Your task to perform on an android device: install app "Venmo" Image 0: 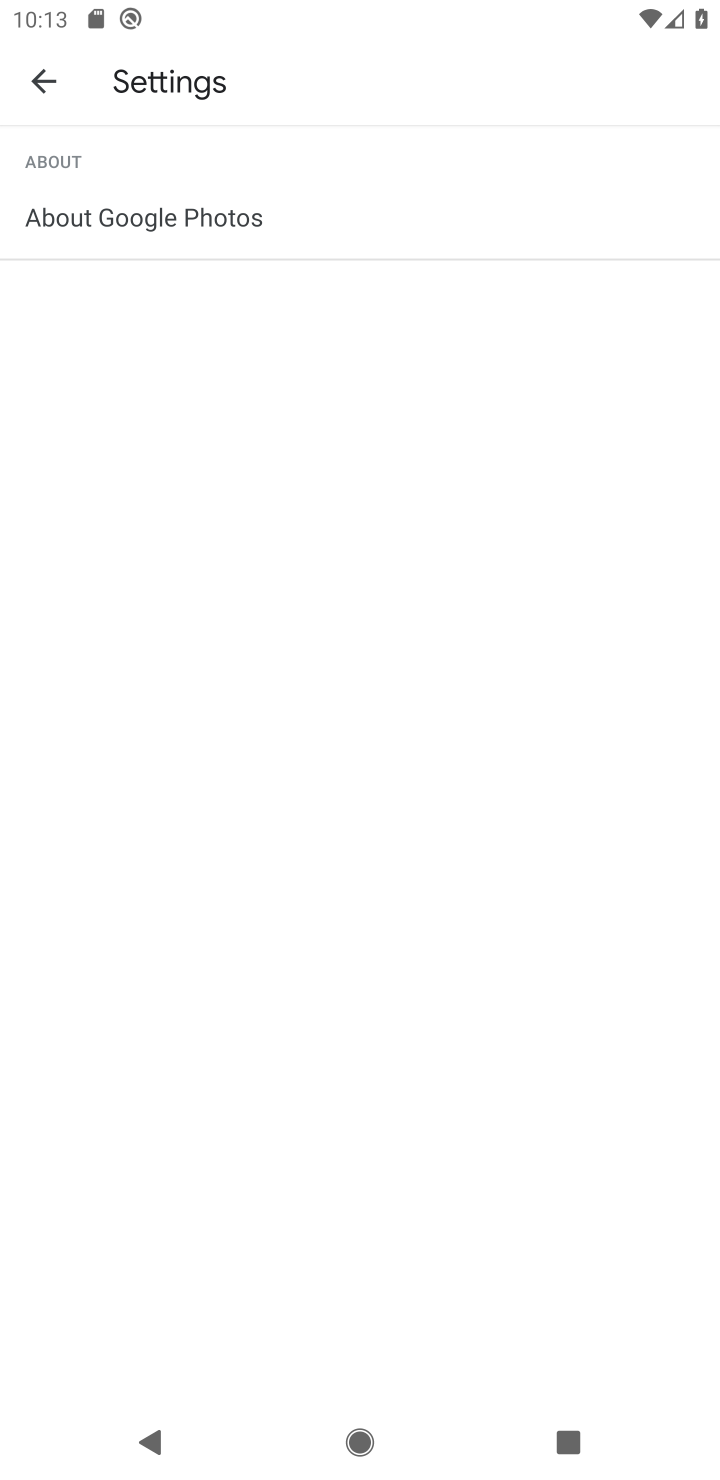
Step 0: press home button
Your task to perform on an android device: install app "Venmo" Image 1: 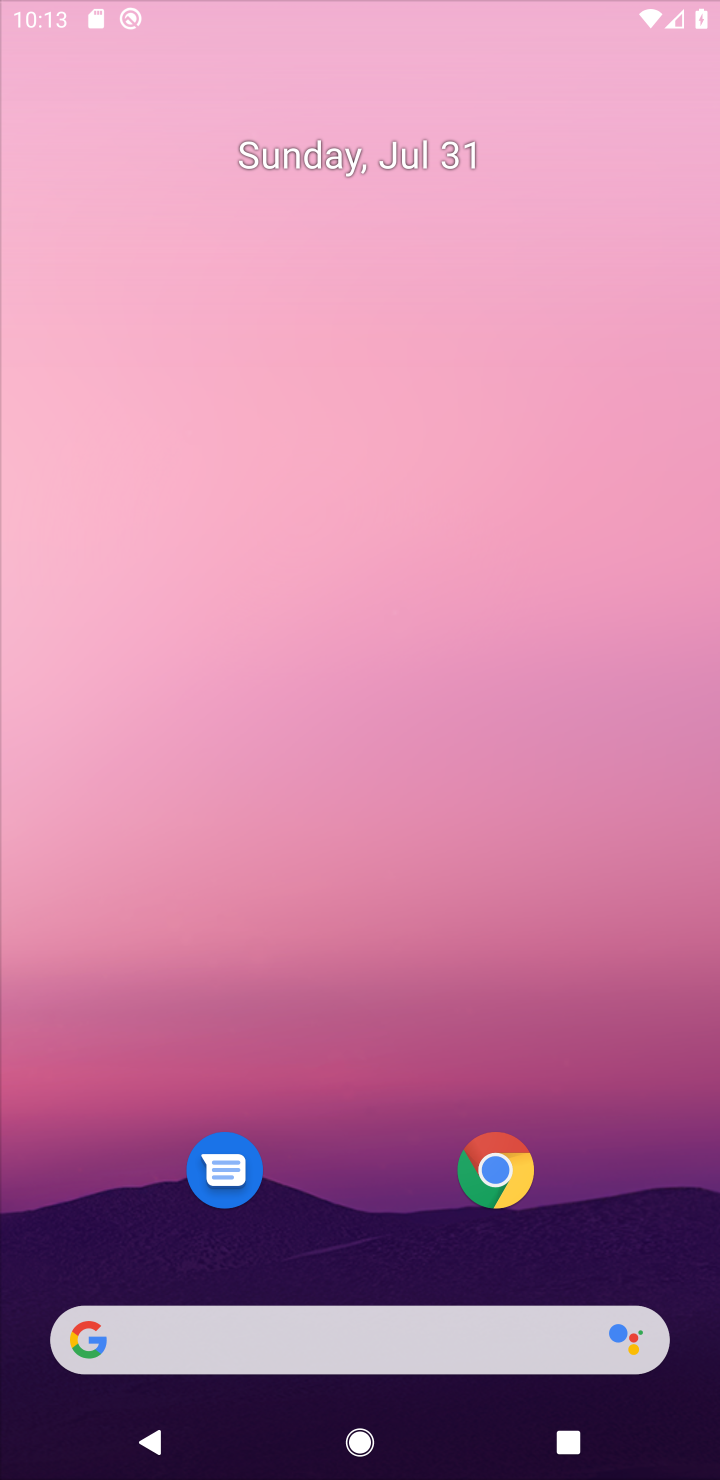
Step 1: drag from (673, 1261) to (374, 55)
Your task to perform on an android device: install app "Venmo" Image 2: 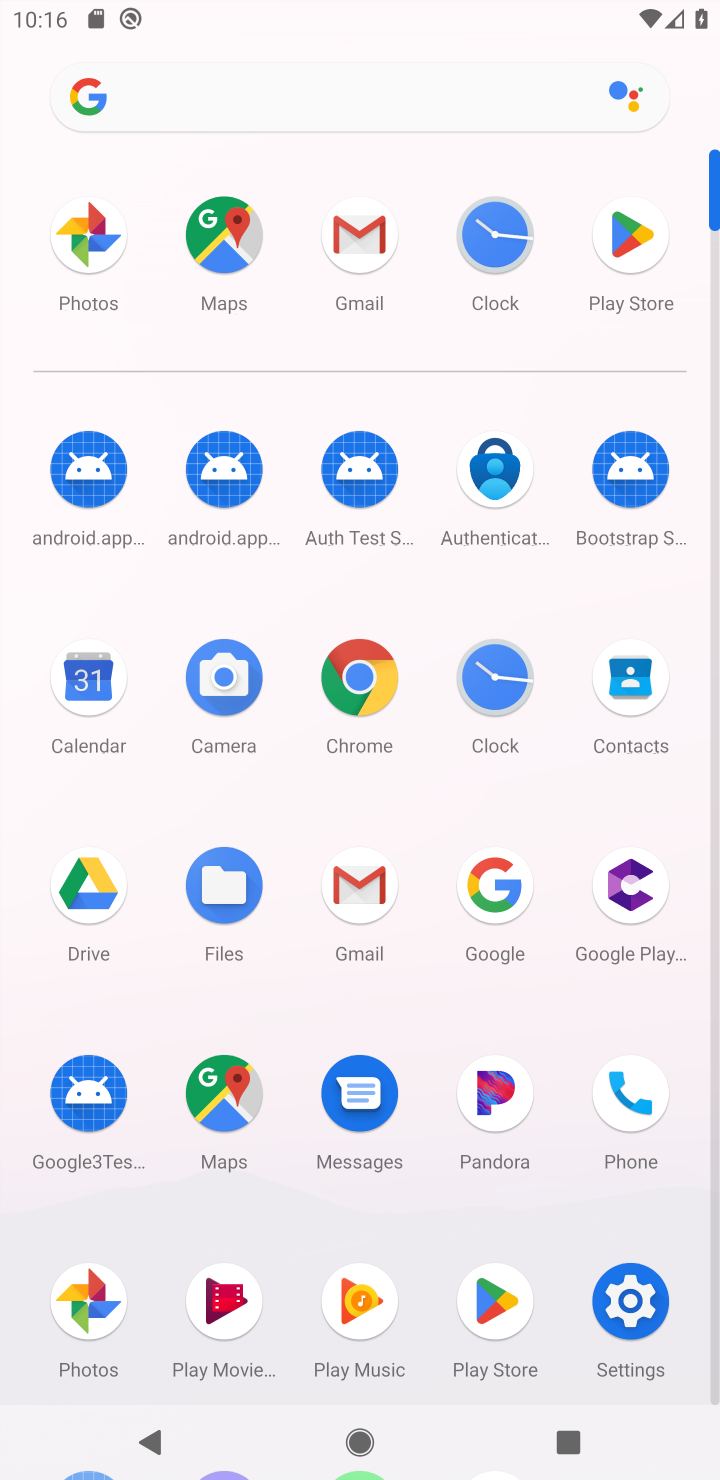
Step 2: click (624, 251)
Your task to perform on an android device: install app "Venmo" Image 3: 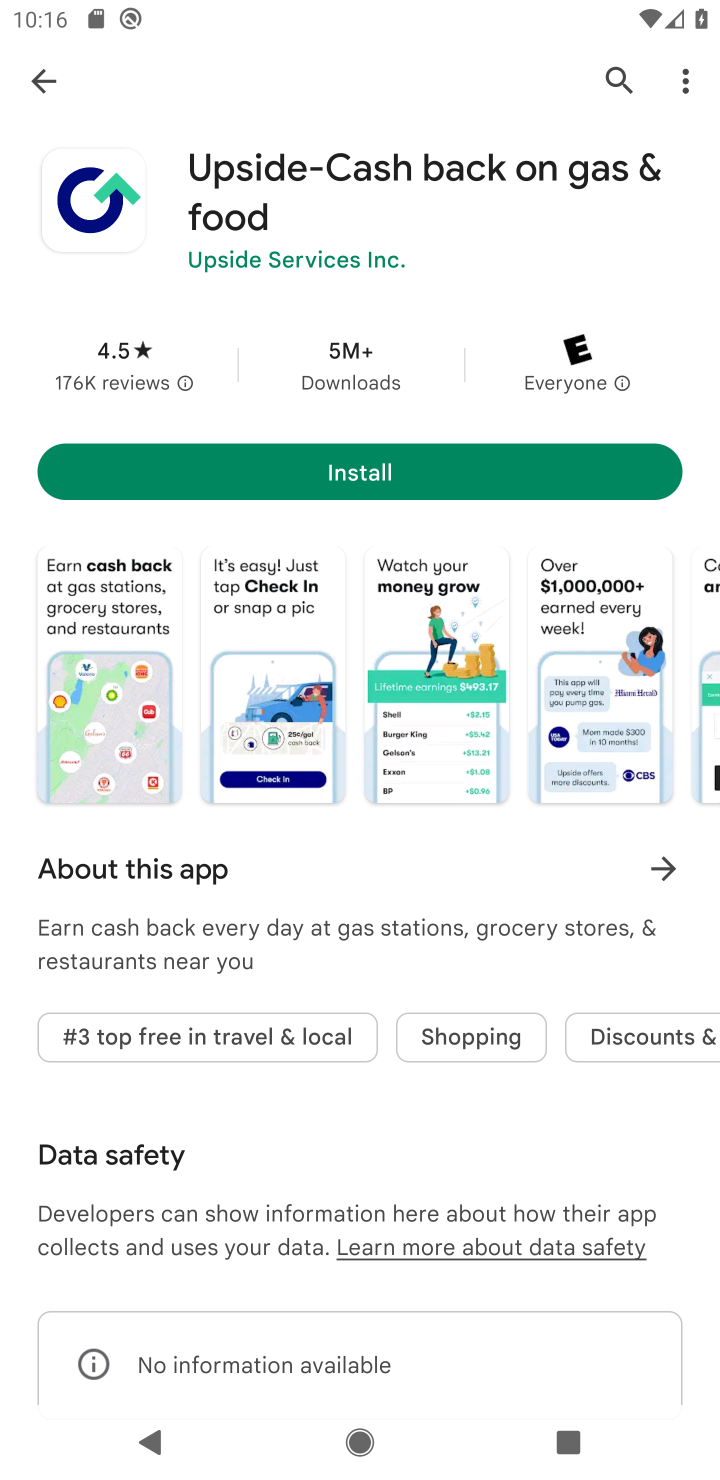
Step 3: press back button
Your task to perform on an android device: install app "Venmo" Image 4: 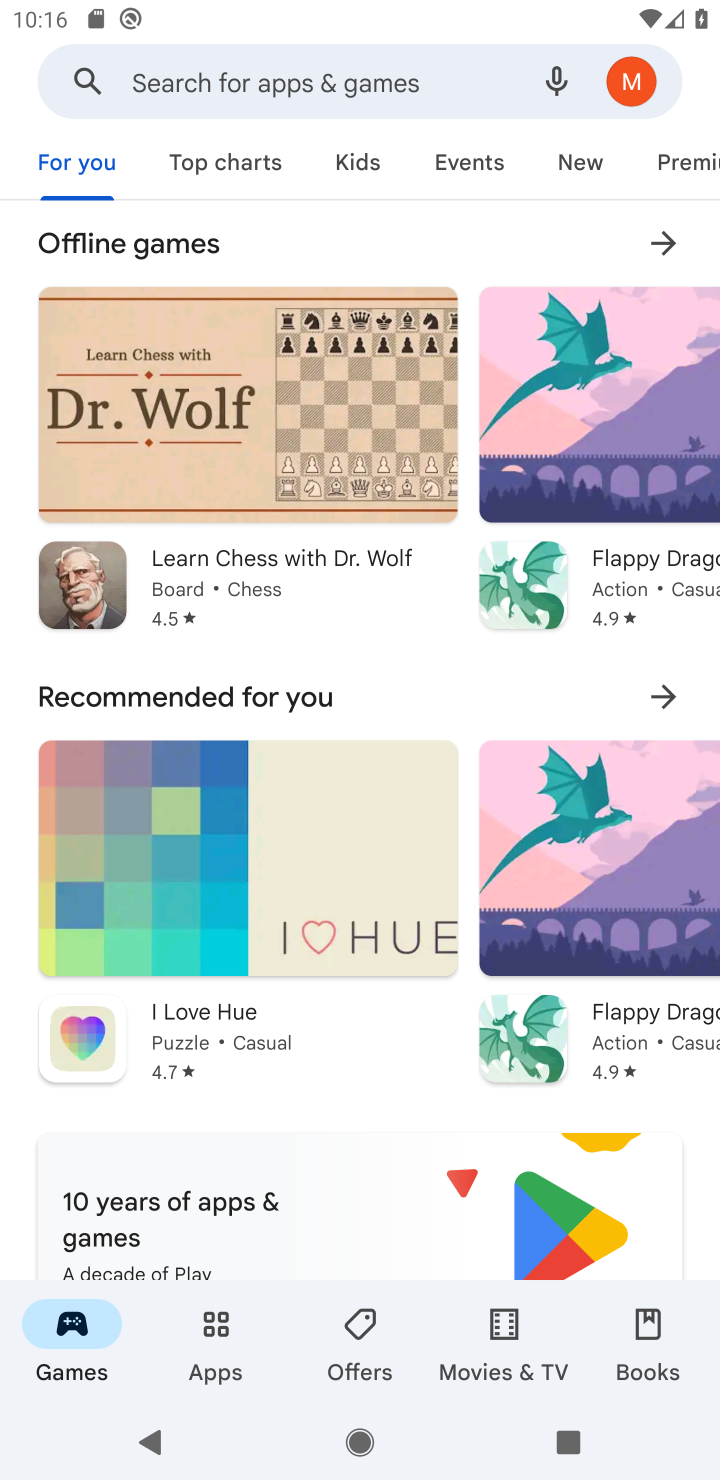
Step 4: click (333, 94)
Your task to perform on an android device: install app "Venmo" Image 5: 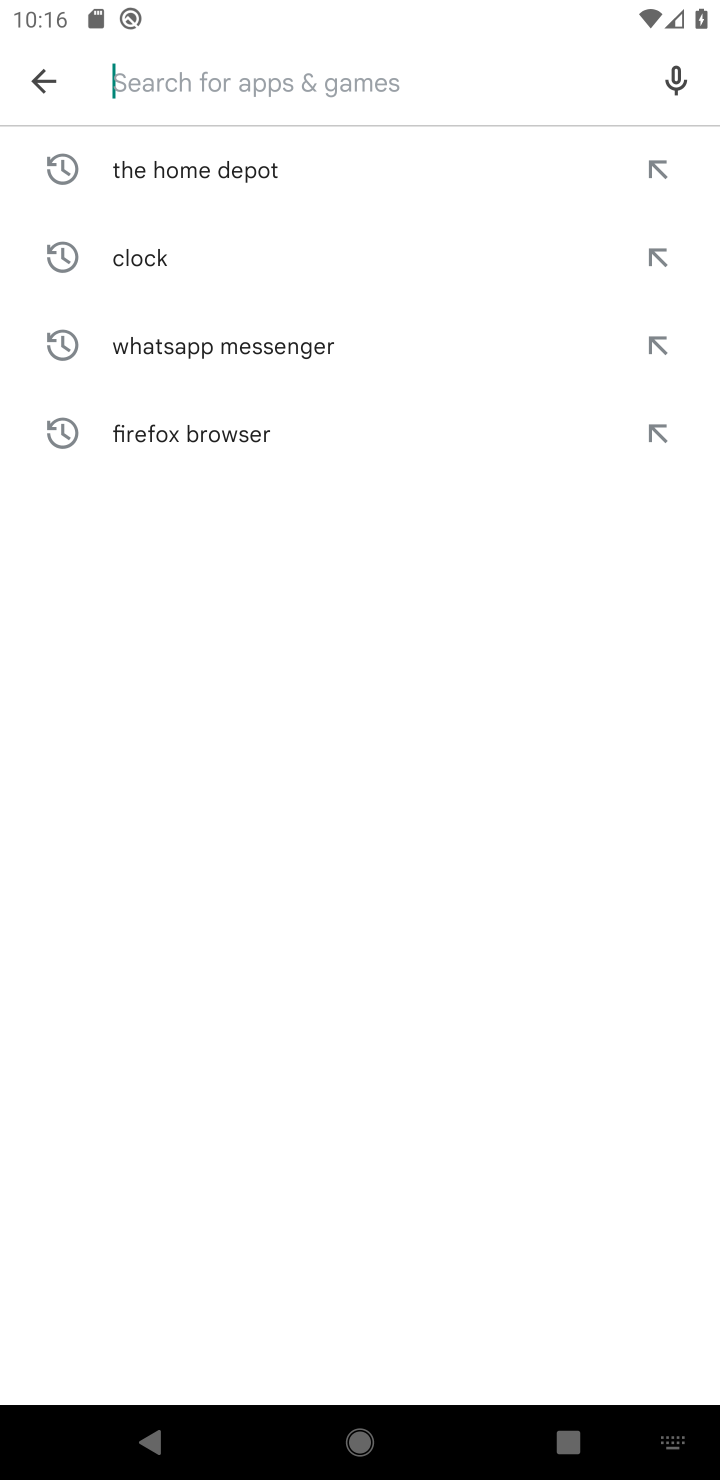
Step 5: type "Venmo"
Your task to perform on an android device: install app "Venmo" Image 6: 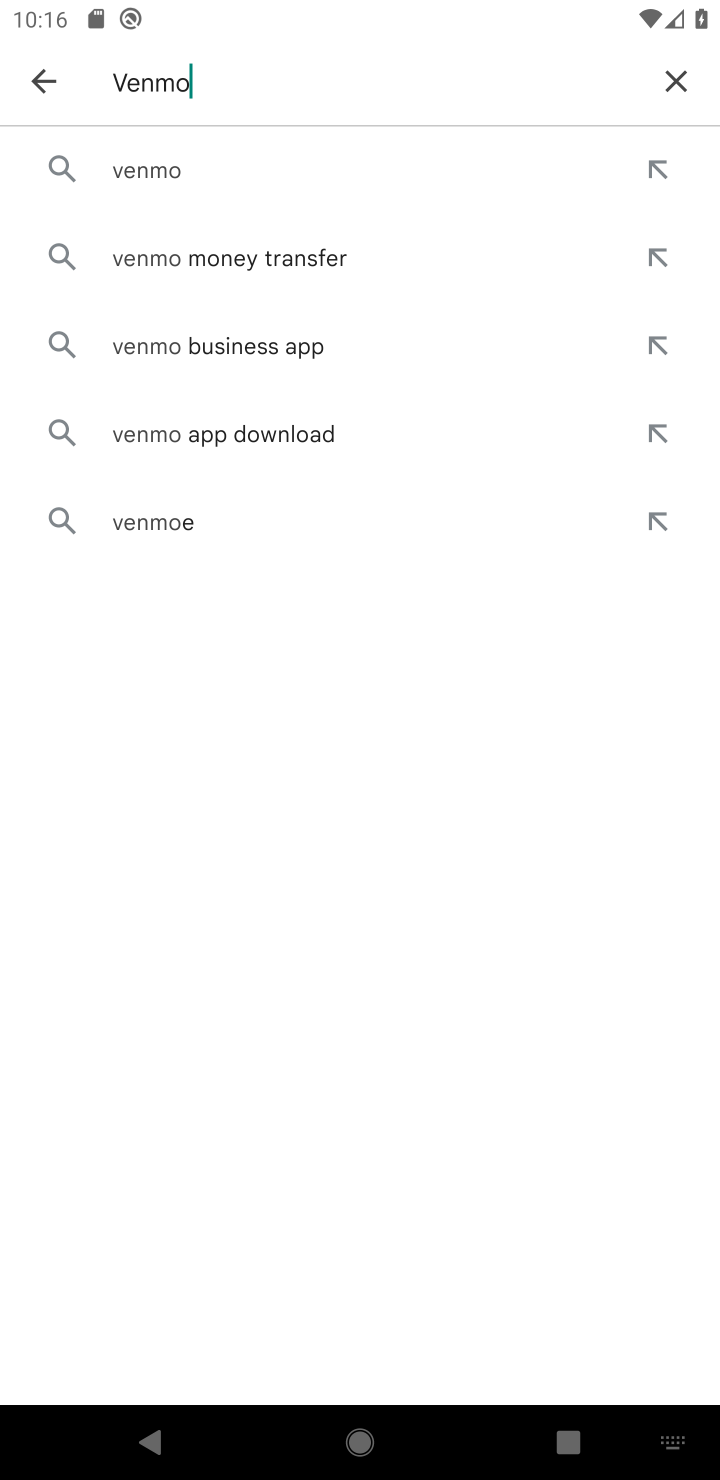
Step 6: click (174, 161)
Your task to perform on an android device: install app "Venmo" Image 7: 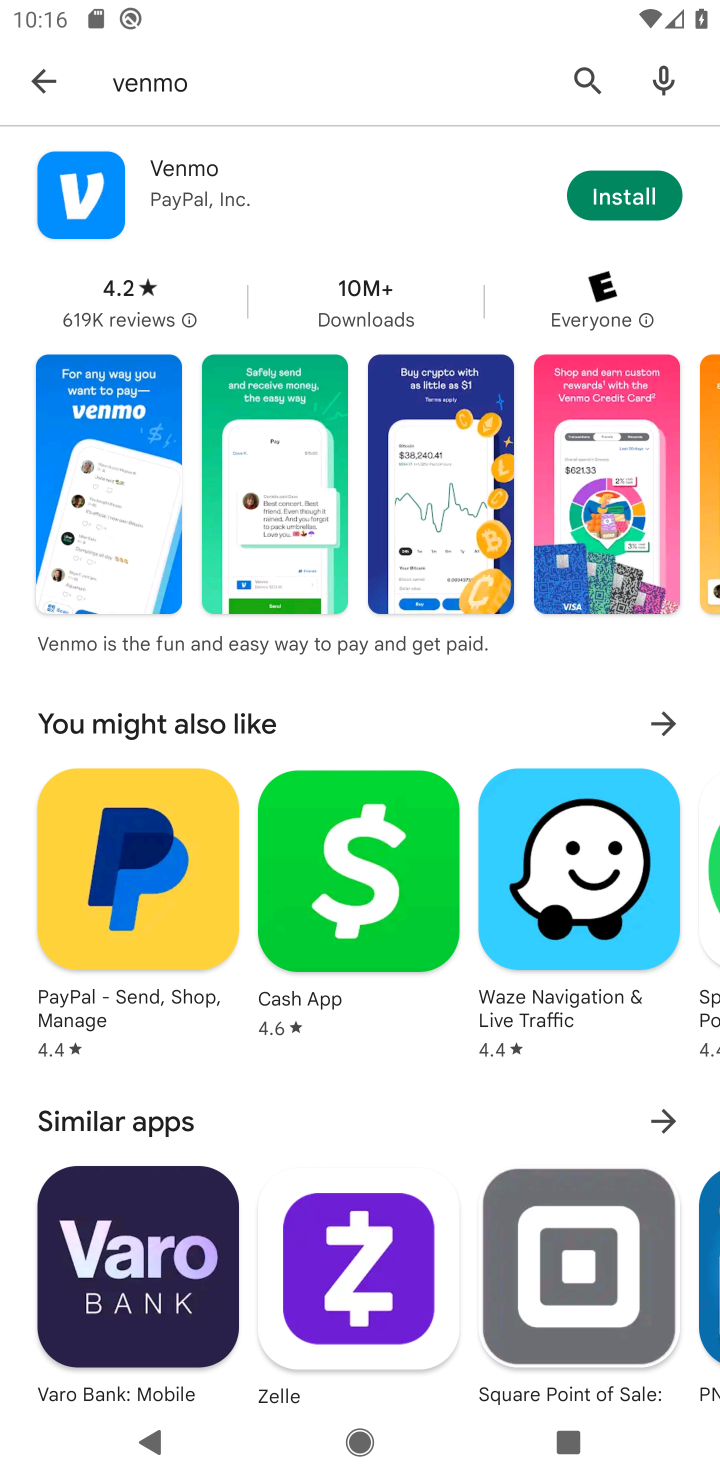
Step 7: click (613, 196)
Your task to perform on an android device: install app "Venmo" Image 8: 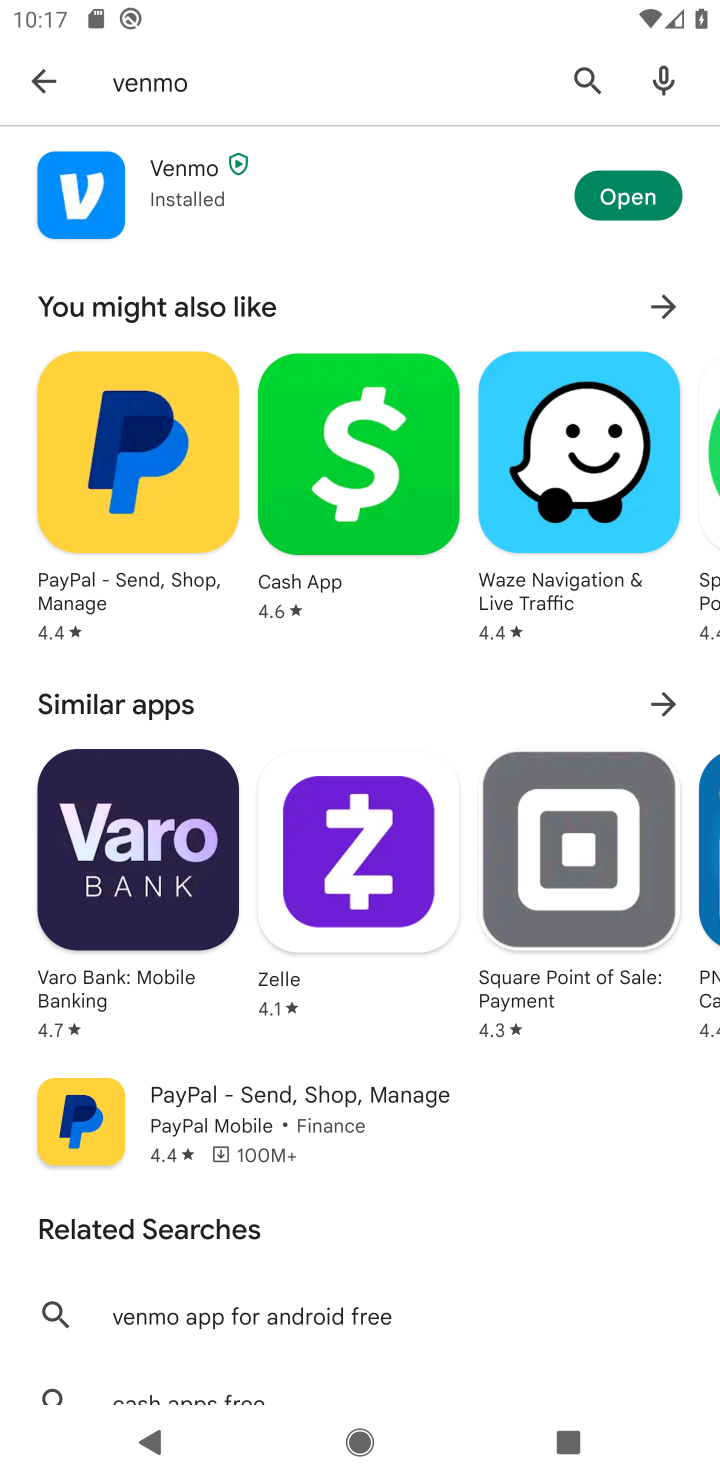
Step 8: task complete